Your task to perform on an android device: turn off sleep mode Image 0: 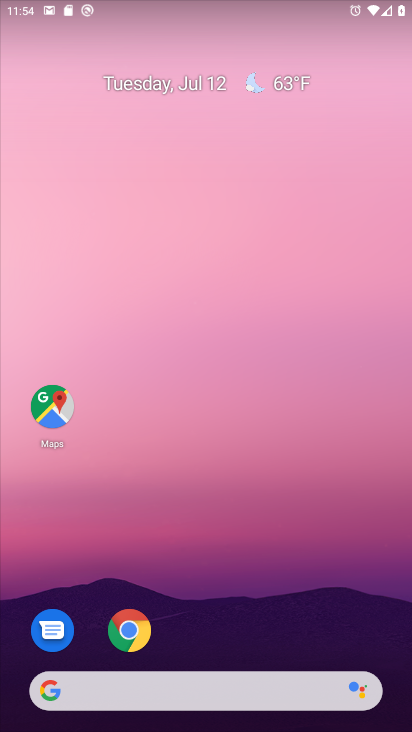
Step 0: drag from (172, 702) to (132, 208)
Your task to perform on an android device: turn off sleep mode Image 1: 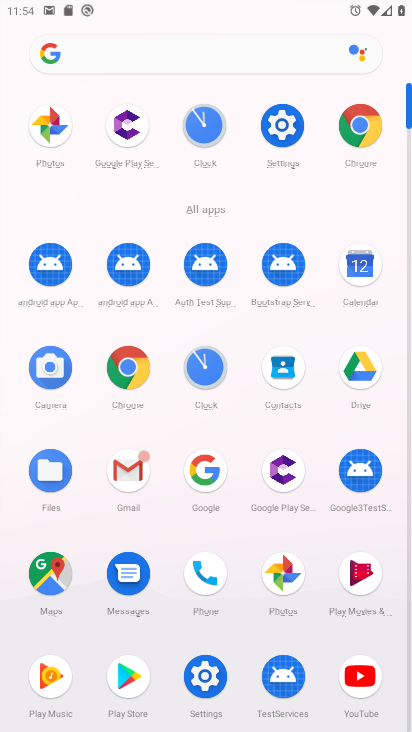
Step 1: click (289, 137)
Your task to perform on an android device: turn off sleep mode Image 2: 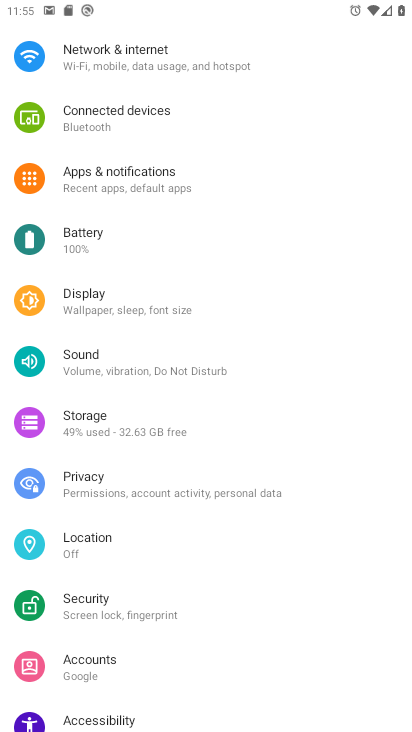
Step 2: click (105, 309)
Your task to perform on an android device: turn off sleep mode Image 3: 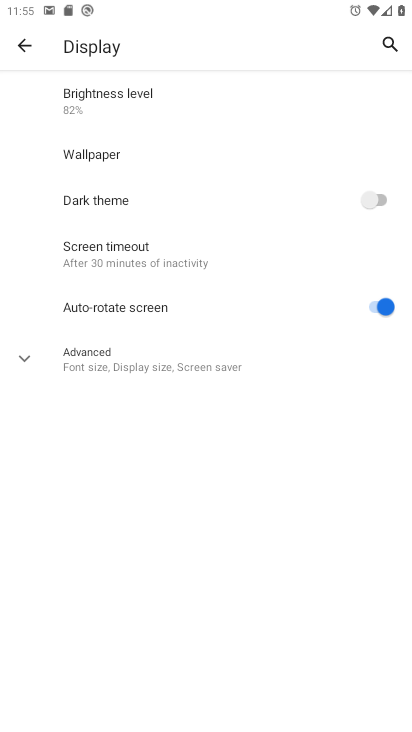
Step 3: click (176, 370)
Your task to perform on an android device: turn off sleep mode Image 4: 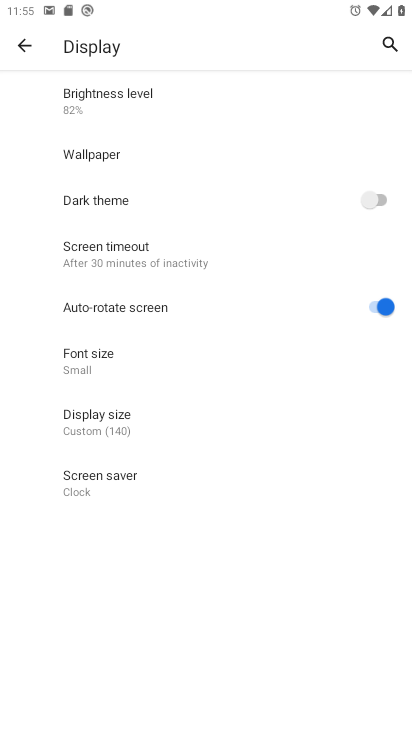
Step 4: task complete